Your task to perform on an android device: Open network settings Image 0: 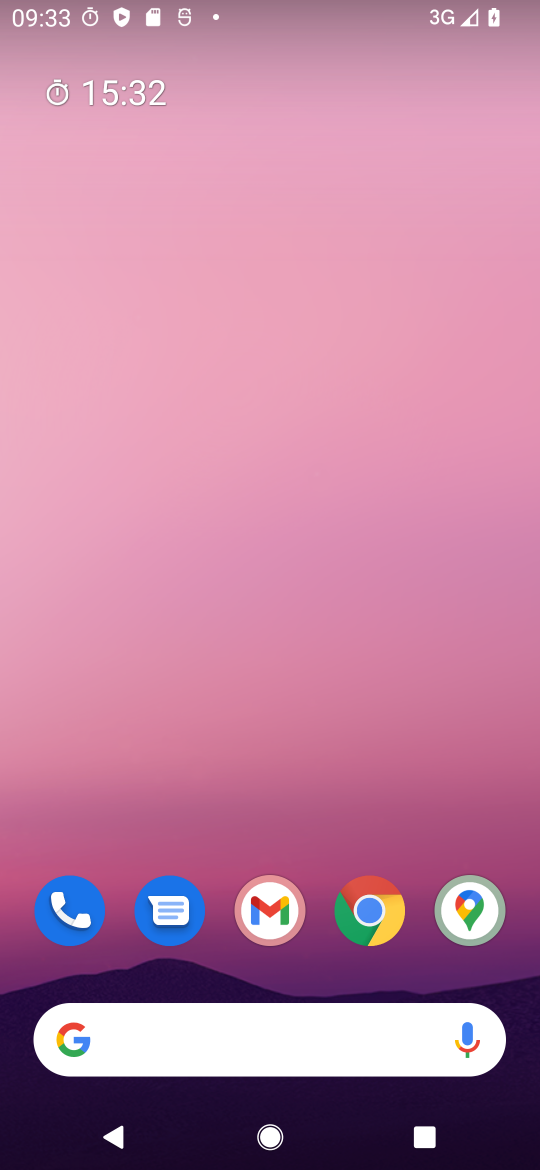
Step 0: drag from (286, 1) to (407, 897)
Your task to perform on an android device: Open network settings Image 1: 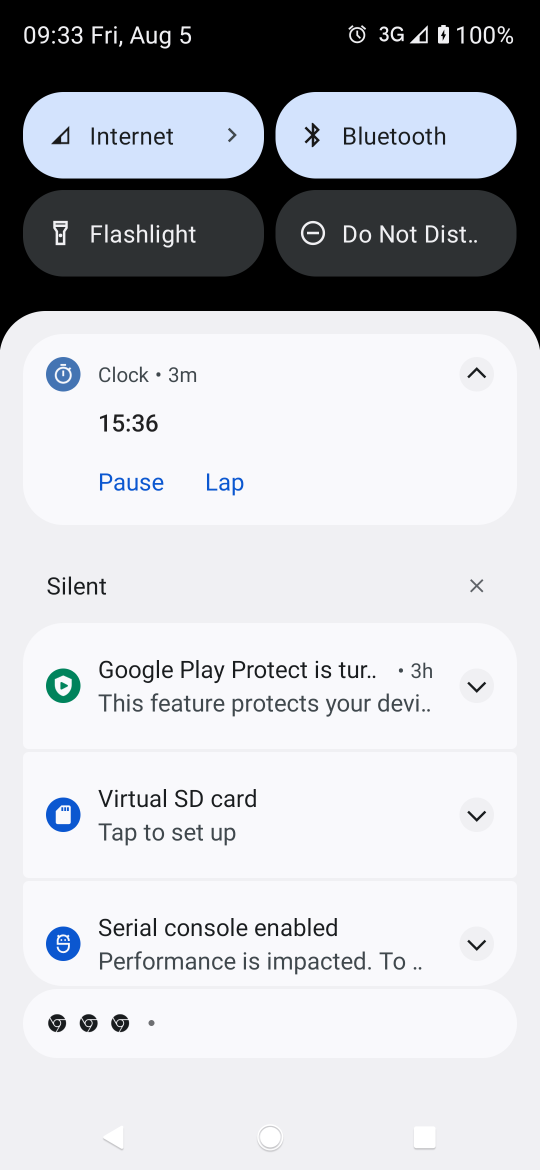
Step 1: click (114, 246)
Your task to perform on an android device: Open network settings Image 2: 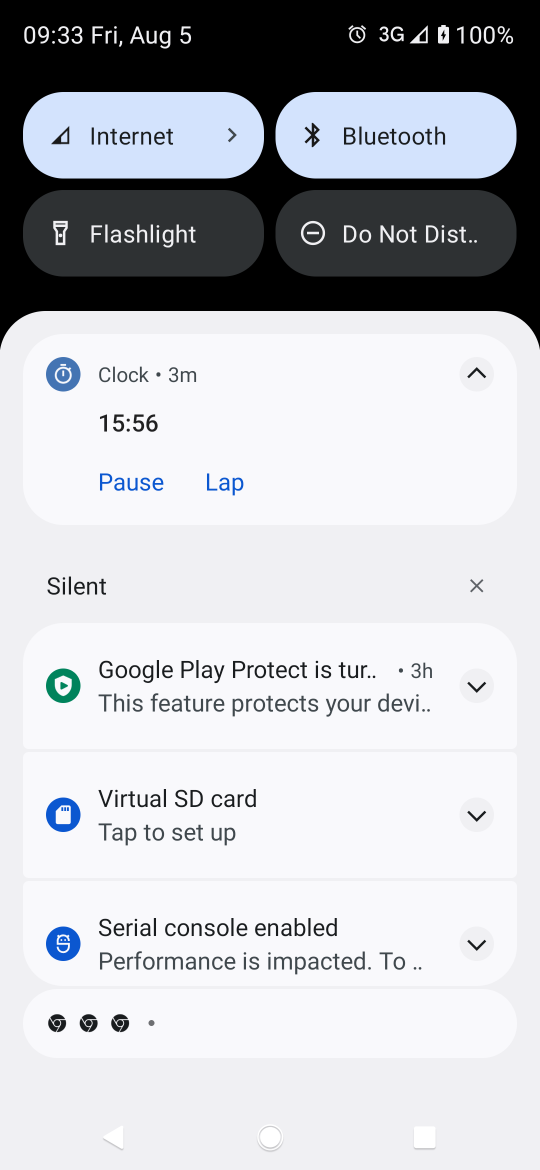
Step 2: press home button
Your task to perform on an android device: Open network settings Image 3: 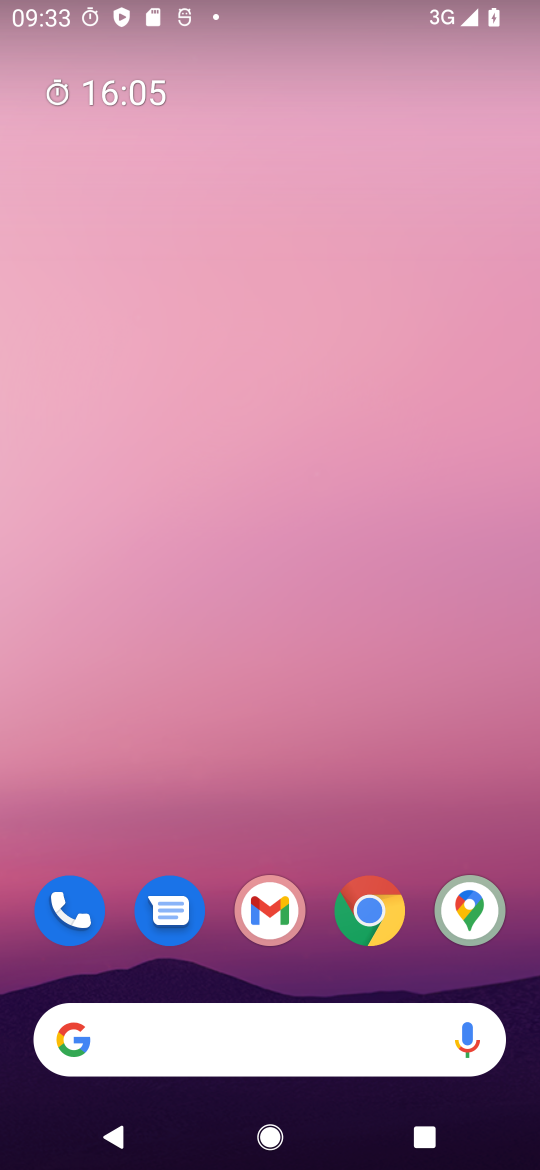
Step 3: drag from (290, 1060) to (347, 123)
Your task to perform on an android device: Open network settings Image 4: 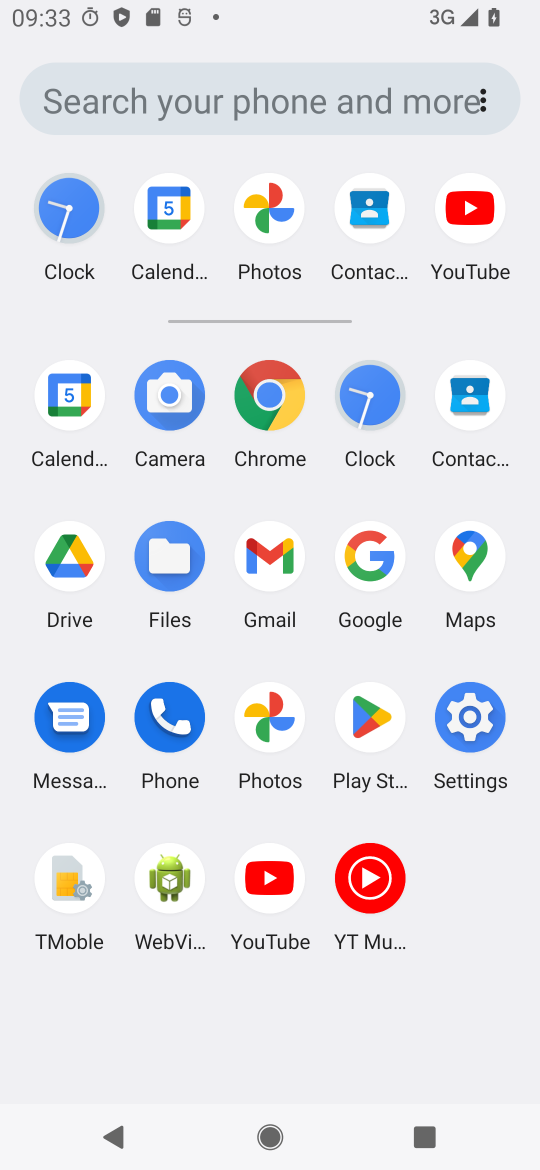
Step 4: click (476, 727)
Your task to perform on an android device: Open network settings Image 5: 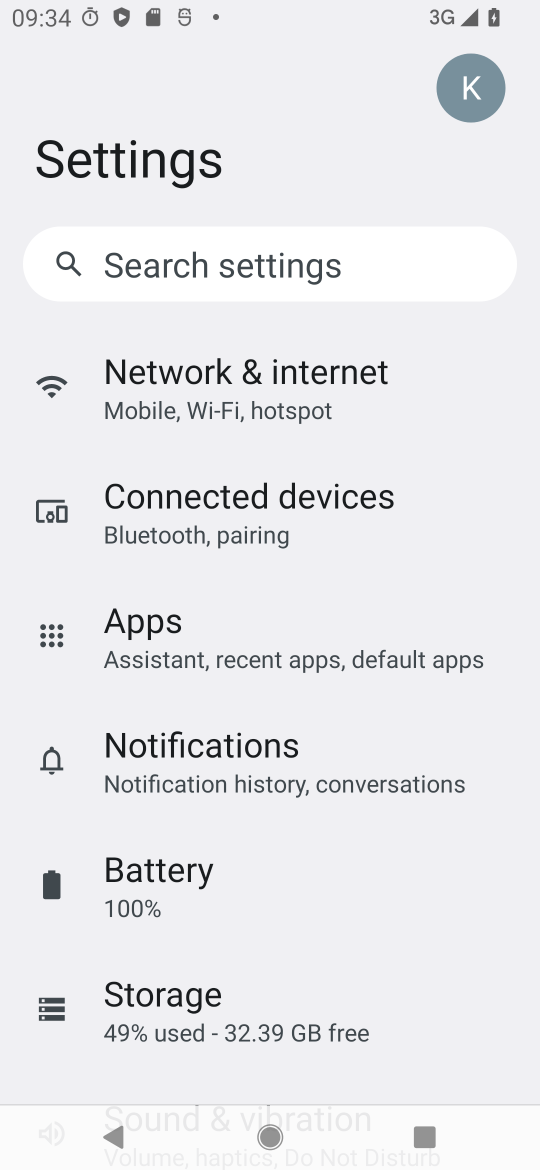
Step 5: click (322, 401)
Your task to perform on an android device: Open network settings Image 6: 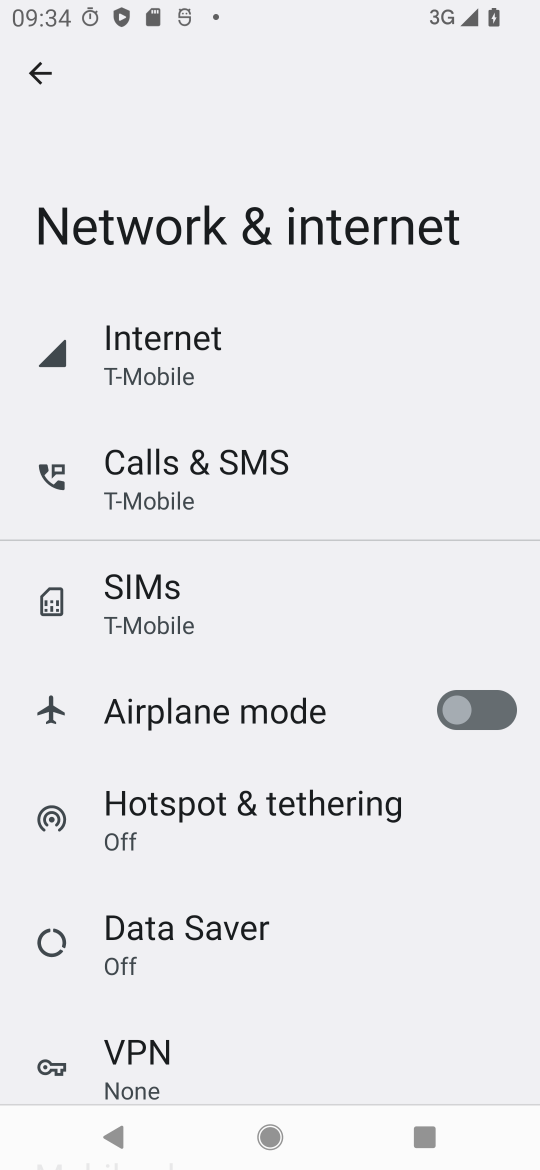
Step 6: click (181, 361)
Your task to perform on an android device: Open network settings Image 7: 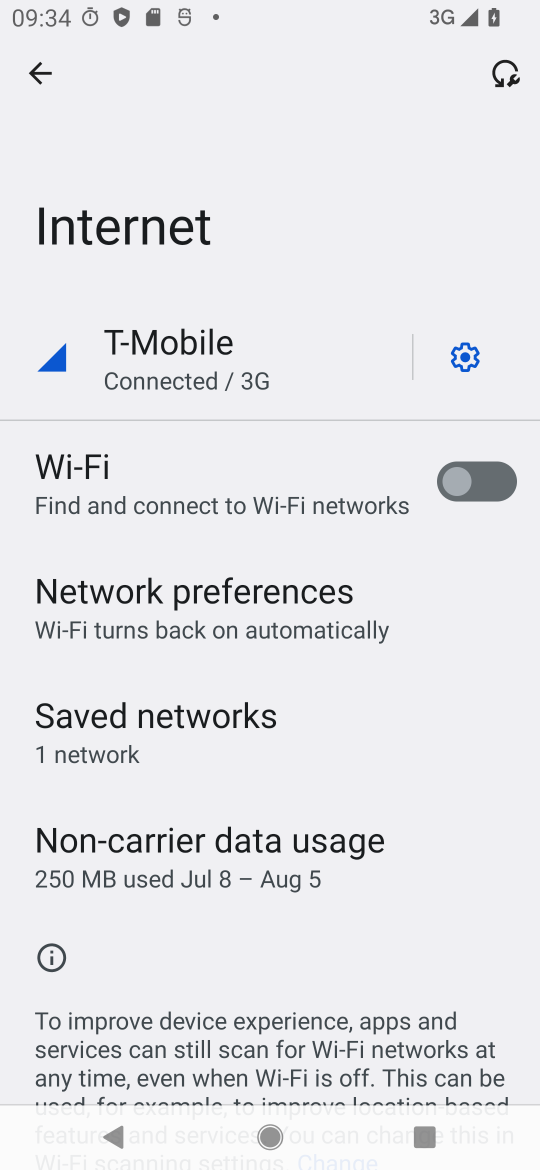
Step 7: task complete